Your task to perform on an android device: Open ESPN.com Image 0: 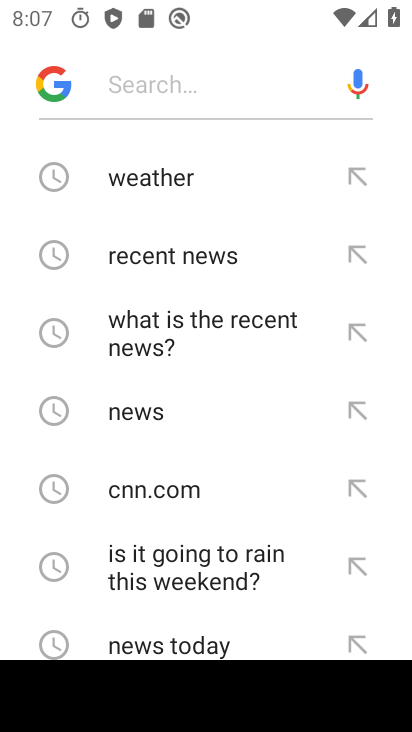
Step 0: press home button
Your task to perform on an android device: Open ESPN.com Image 1: 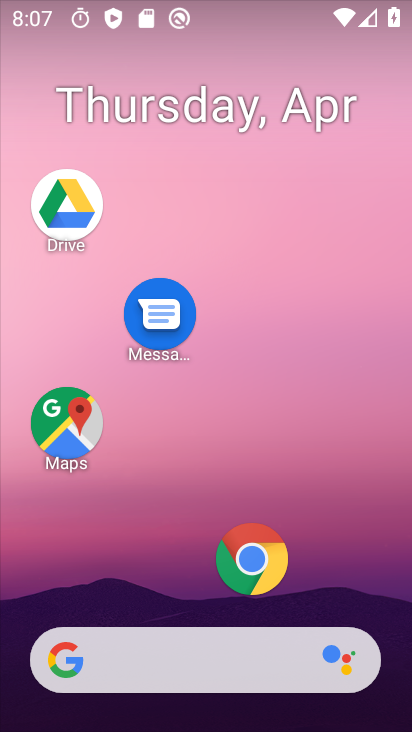
Step 1: drag from (132, 4) to (181, 24)
Your task to perform on an android device: Open ESPN.com Image 2: 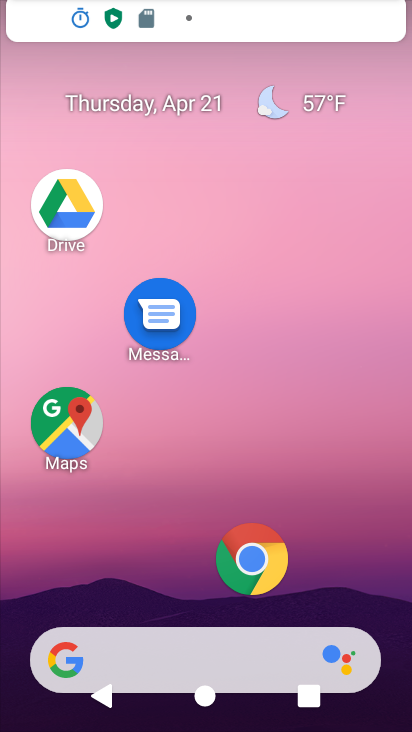
Step 2: drag from (122, 0) to (104, 82)
Your task to perform on an android device: Open ESPN.com Image 3: 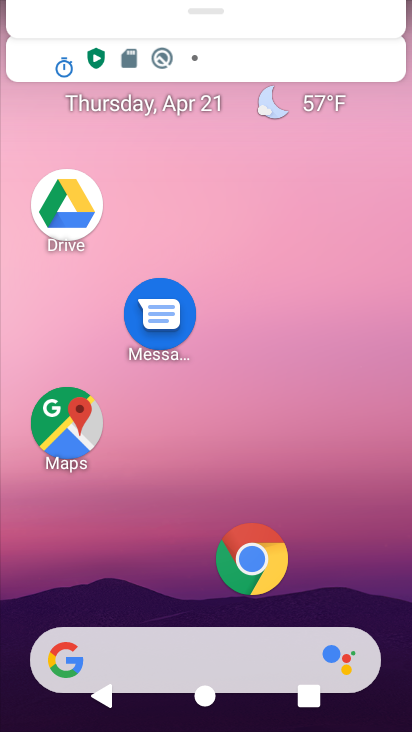
Step 3: drag from (266, 659) to (299, 230)
Your task to perform on an android device: Open ESPN.com Image 4: 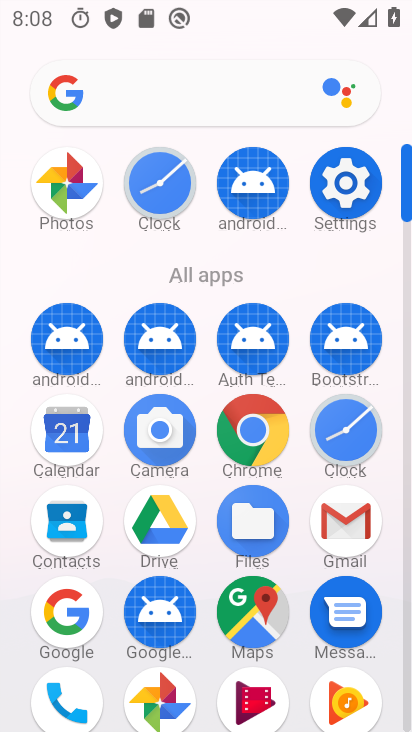
Step 4: click (245, 428)
Your task to perform on an android device: Open ESPN.com Image 5: 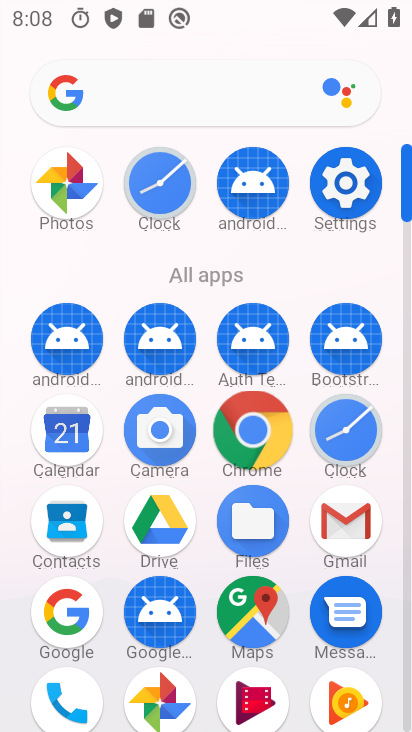
Step 5: click (247, 427)
Your task to perform on an android device: Open ESPN.com Image 6: 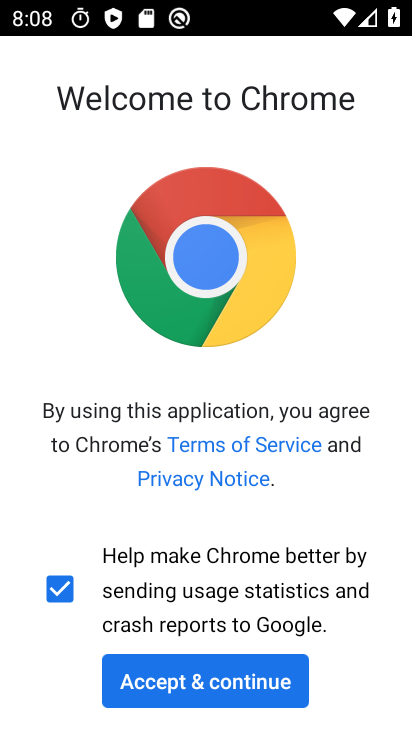
Step 6: click (182, 674)
Your task to perform on an android device: Open ESPN.com Image 7: 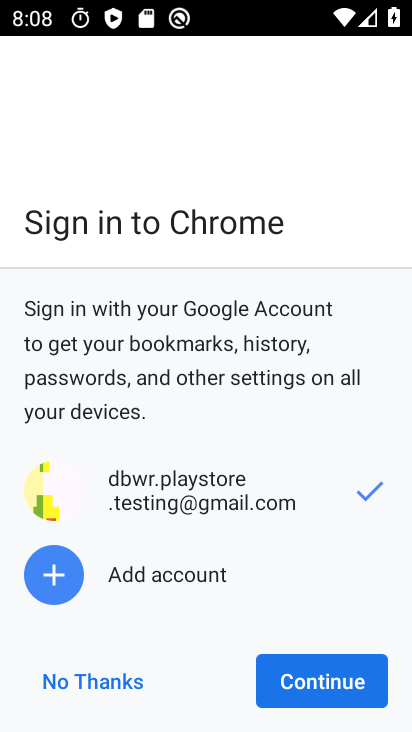
Step 7: click (190, 682)
Your task to perform on an android device: Open ESPN.com Image 8: 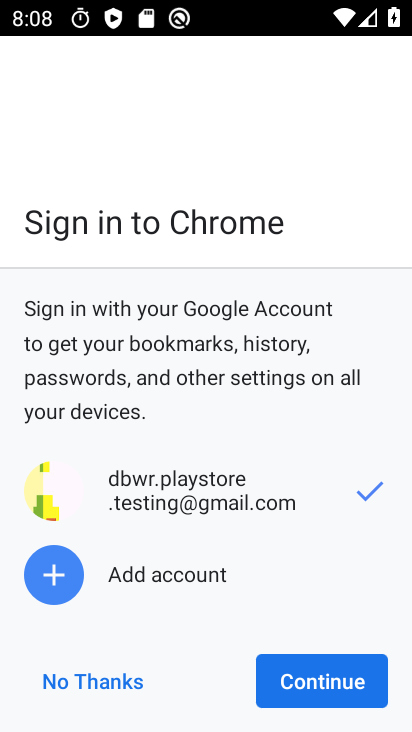
Step 8: click (335, 676)
Your task to perform on an android device: Open ESPN.com Image 9: 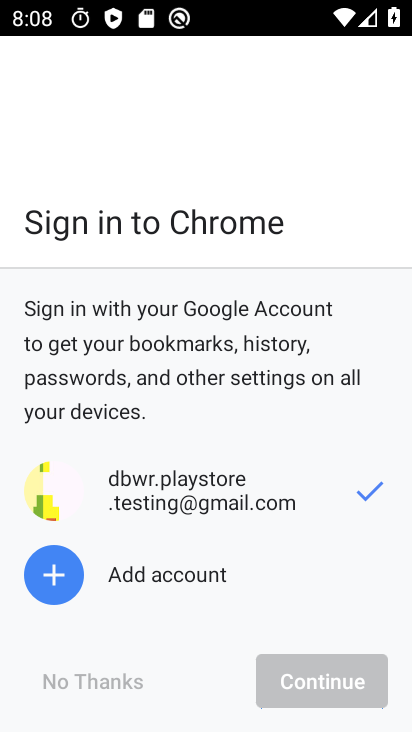
Step 9: click (336, 680)
Your task to perform on an android device: Open ESPN.com Image 10: 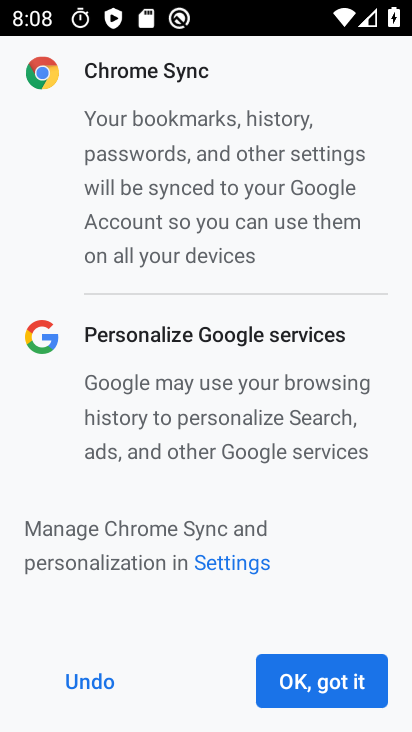
Step 10: click (335, 680)
Your task to perform on an android device: Open ESPN.com Image 11: 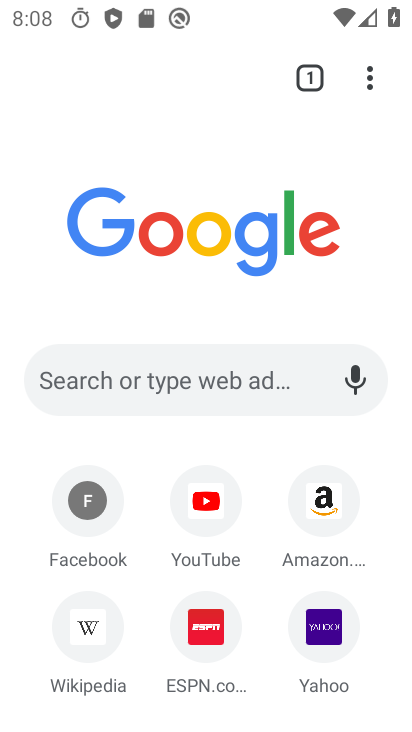
Step 11: click (202, 629)
Your task to perform on an android device: Open ESPN.com Image 12: 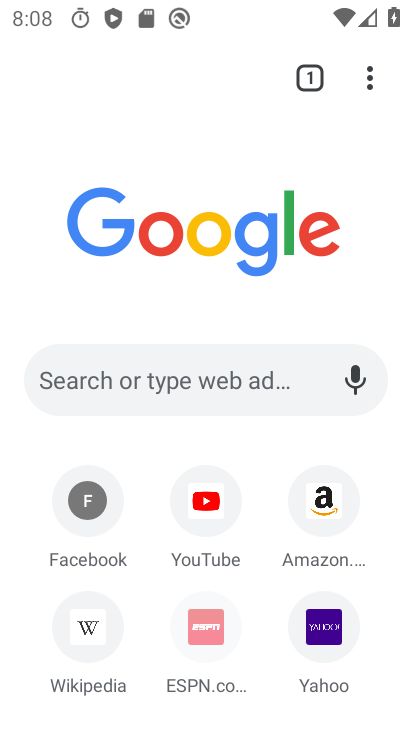
Step 12: click (209, 634)
Your task to perform on an android device: Open ESPN.com Image 13: 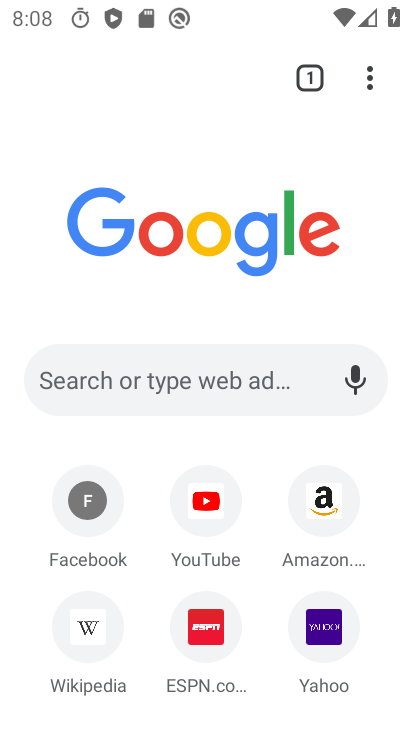
Step 13: click (212, 633)
Your task to perform on an android device: Open ESPN.com Image 14: 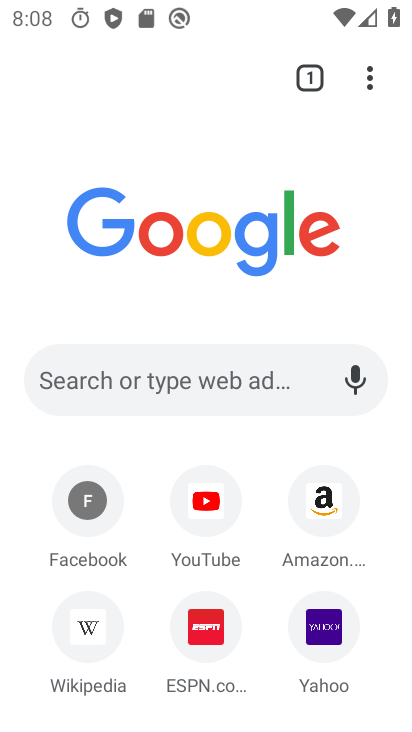
Step 14: click (212, 633)
Your task to perform on an android device: Open ESPN.com Image 15: 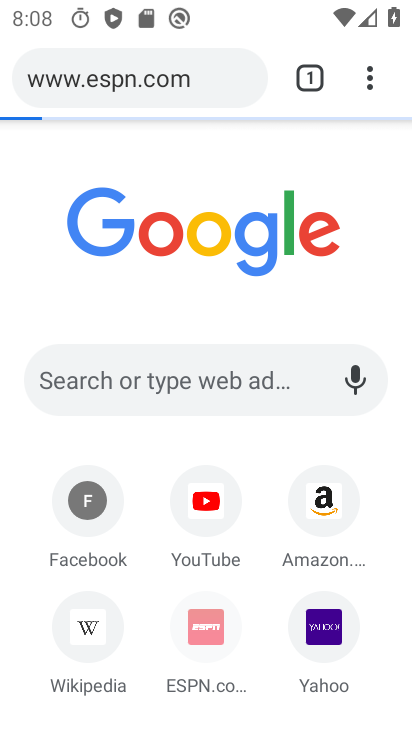
Step 15: click (204, 618)
Your task to perform on an android device: Open ESPN.com Image 16: 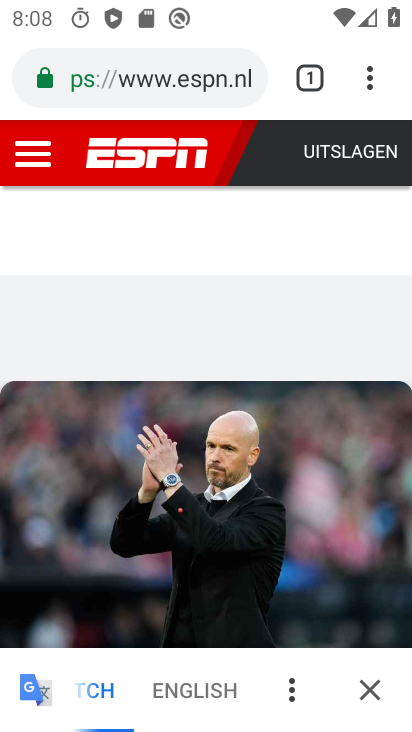
Step 16: drag from (192, 416) to (232, 173)
Your task to perform on an android device: Open ESPN.com Image 17: 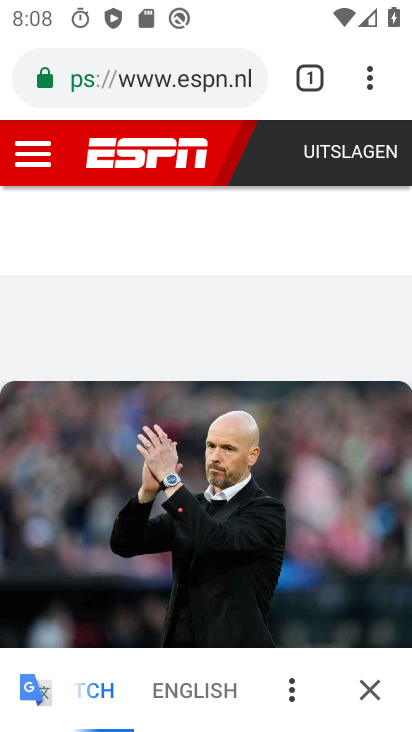
Step 17: drag from (149, 504) to (92, 181)
Your task to perform on an android device: Open ESPN.com Image 18: 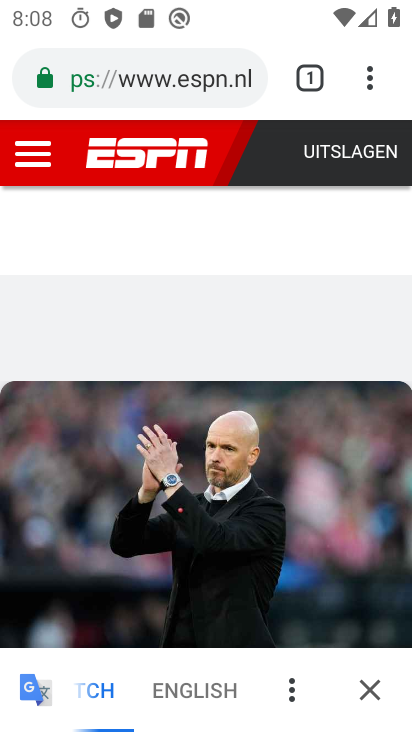
Step 18: drag from (119, 544) to (126, 270)
Your task to perform on an android device: Open ESPN.com Image 19: 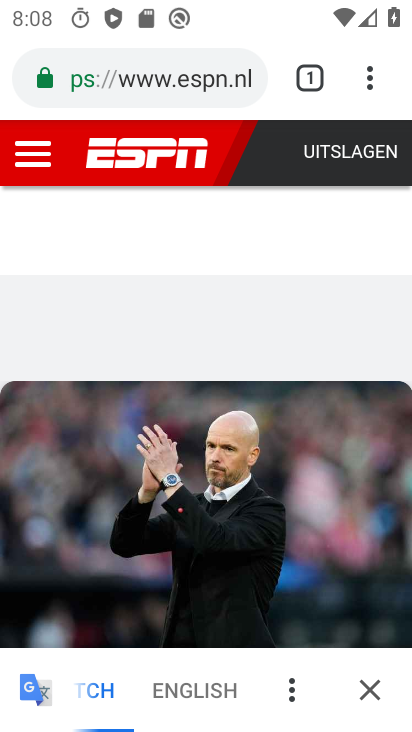
Step 19: click (128, 50)
Your task to perform on an android device: Open ESPN.com Image 20: 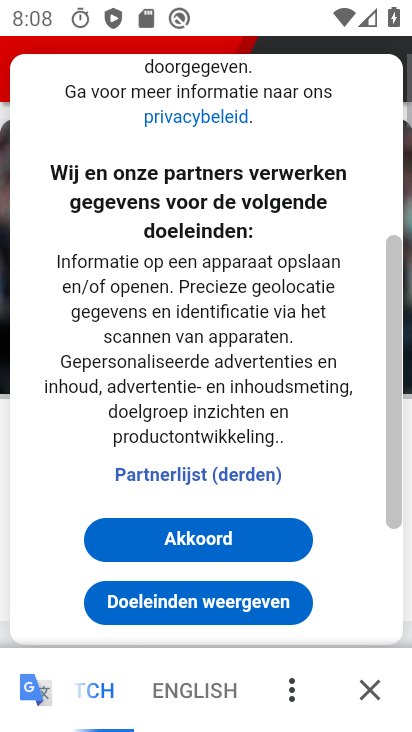
Step 20: task complete